Your task to perform on an android device: When is my next appointment? Image 0: 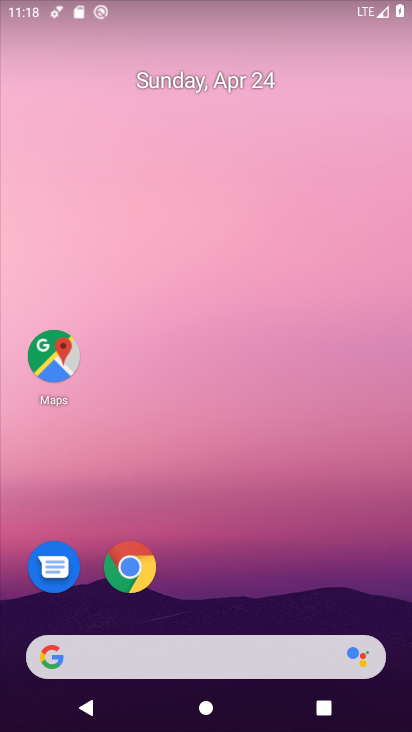
Step 0: drag from (254, 566) to (306, 308)
Your task to perform on an android device: When is my next appointment? Image 1: 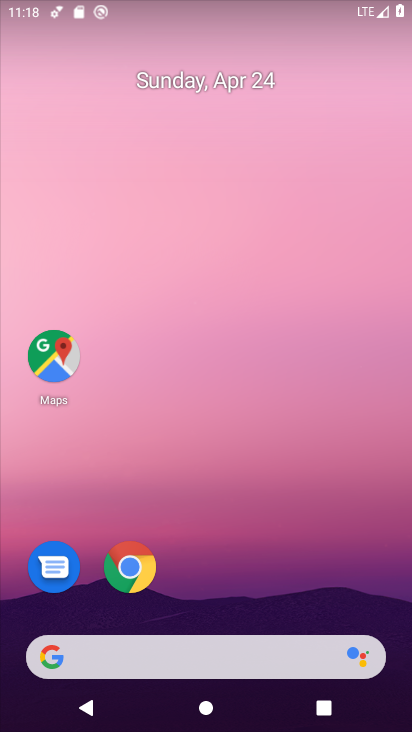
Step 1: drag from (246, 598) to (307, 290)
Your task to perform on an android device: When is my next appointment? Image 2: 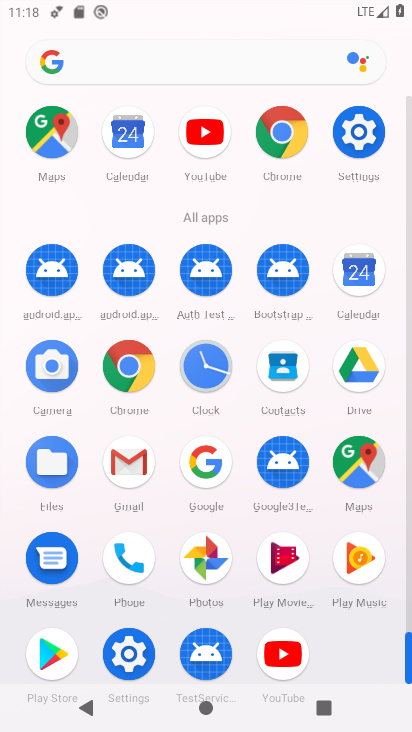
Step 2: click (348, 305)
Your task to perform on an android device: When is my next appointment? Image 3: 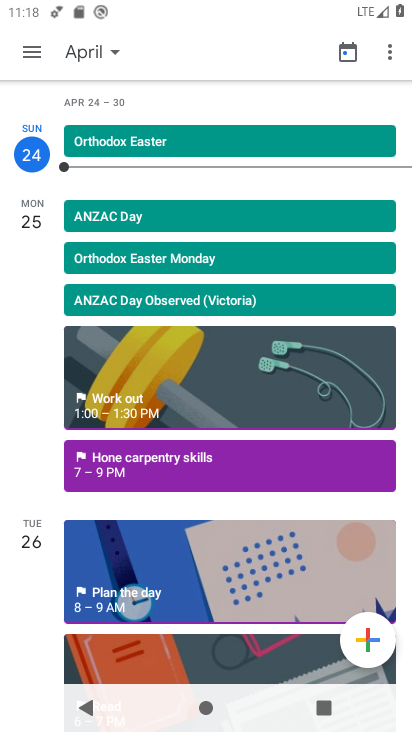
Step 3: task complete